Your task to perform on an android device: toggle javascript in the chrome app Image 0: 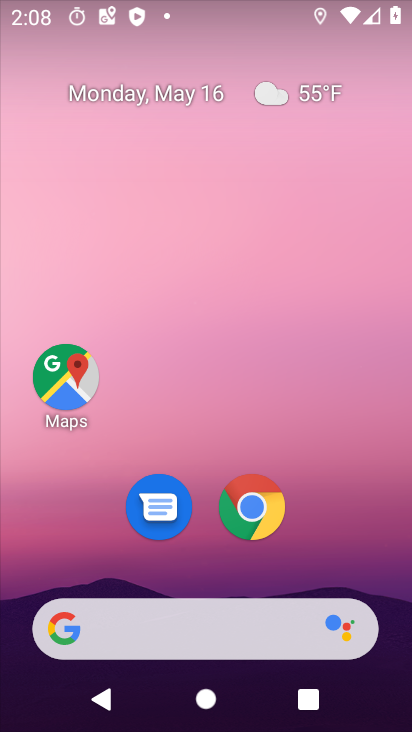
Step 0: click (244, 513)
Your task to perform on an android device: toggle javascript in the chrome app Image 1: 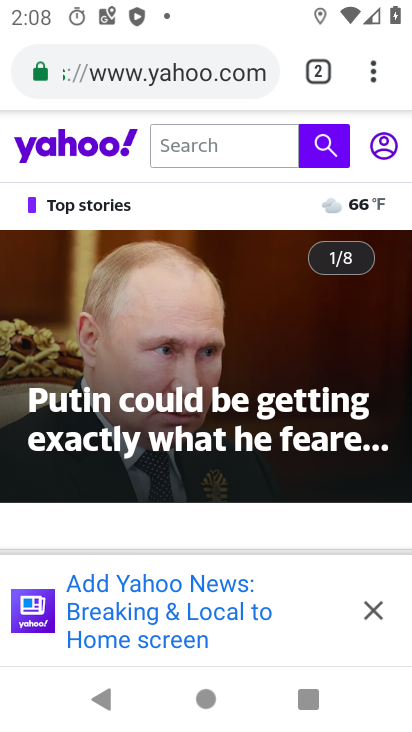
Step 1: click (367, 67)
Your task to perform on an android device: toggle javascript in the chrome app Image 2: 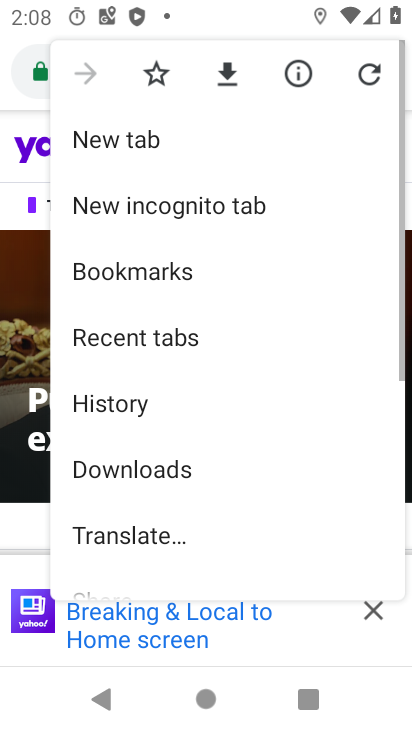
Step 2: drag from (153, 502) to (174, 102)
Your task to perform on an android device: toggle javascript in the chrome app Image 3: 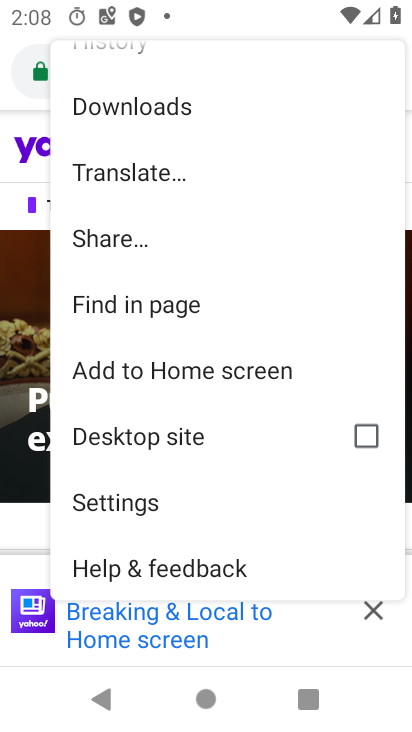
Step 3: click (123, 496)
Your task to perform on an android device: toggle javascript in the chrome app Image 4: 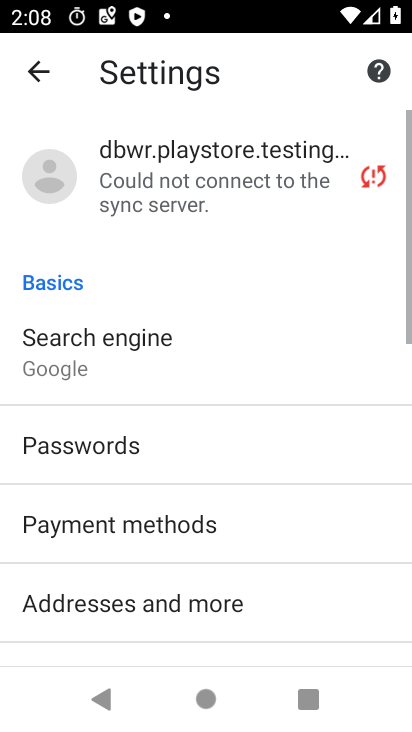
Step 4: drag from (204, 504) to (206, 106)
Your task to perform on an android device: toggle javascript in the chrome app Image 5: 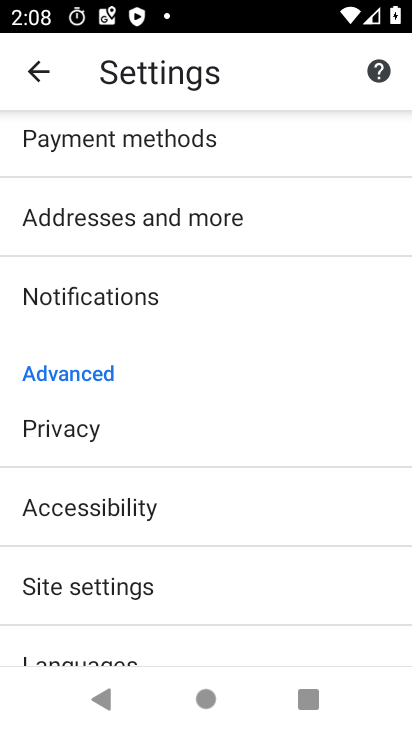
Step 5: click (97, 578)
Your task to perform on an android device: toggle javascript in the chrome app Image 6: 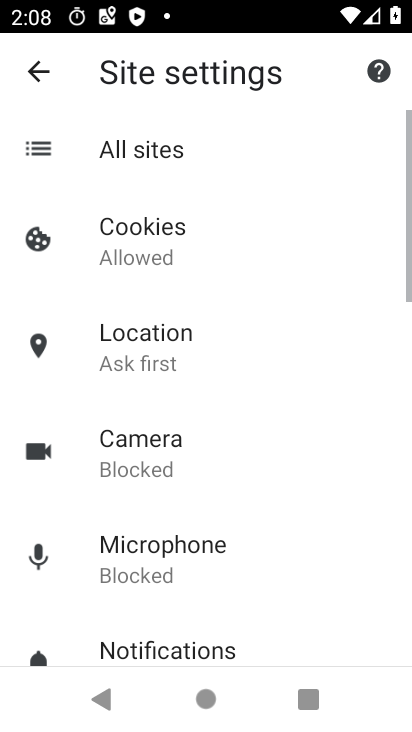
Step 6: drag from (173, 590) to (177, 181)
Your task to perform on an android device: toggle javascript in the chrome app Image 7: 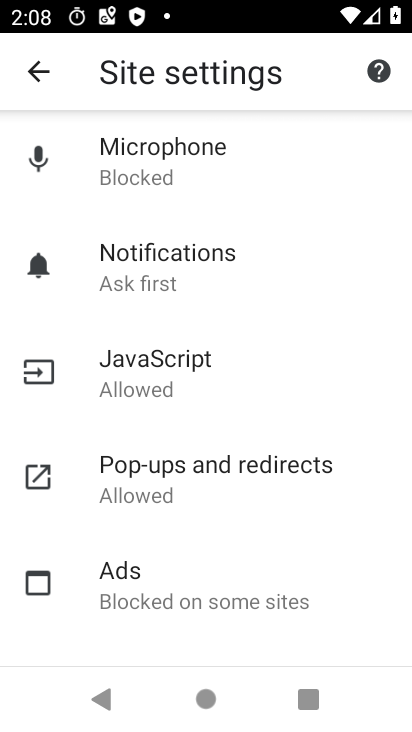
Step 7: click (184, 373)
Your task to perform on an android device: toggle javascript in the chrome app Image 8: 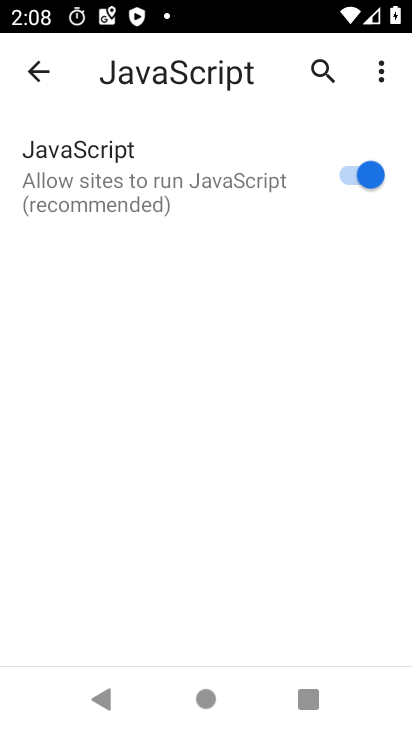
Step 8: click (373, 175)
Your task to perform on an android device: toggle javascript in the chrome app Image 9: 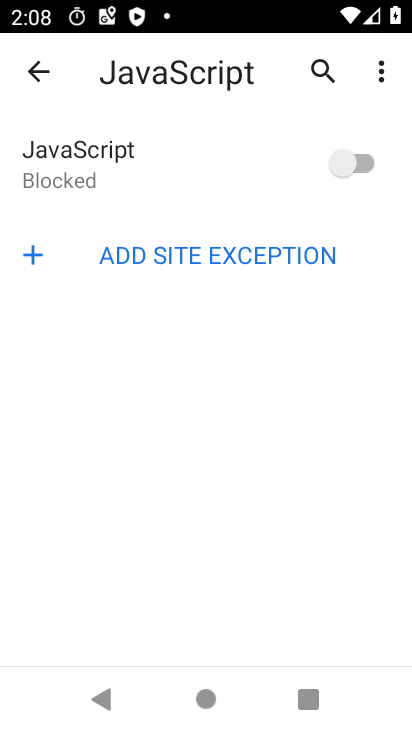
Step 9: task complete